Your task to perform on an android device: check battery use Image 0: 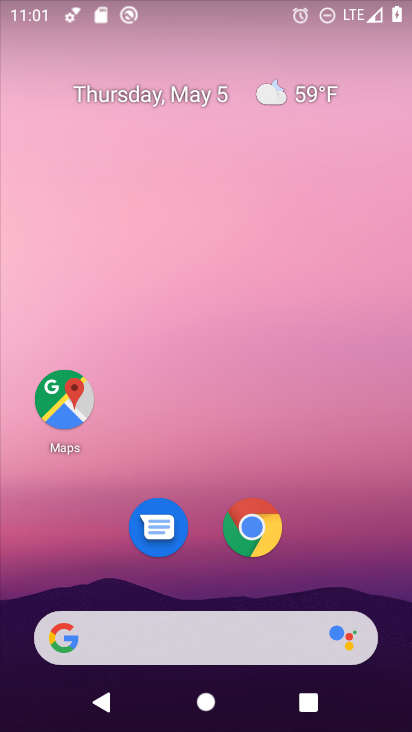
Step 0: drag from (258, 704) to (352, 66)
Your task to perform on an android device: check battery use Image 1: 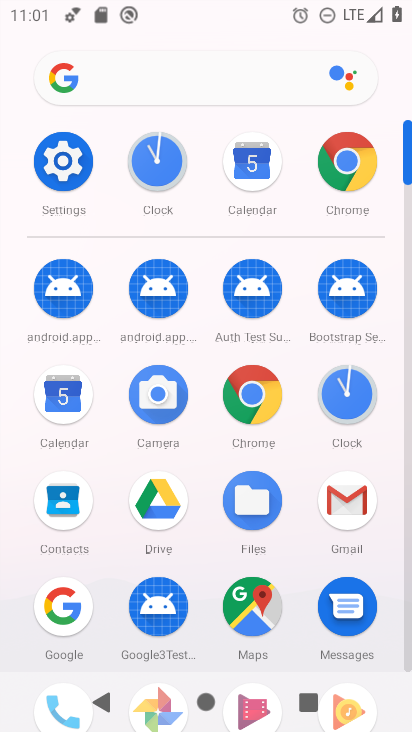
Step 1: click (69, 187)
Your task to perform on an android device: check battery use Image 2: 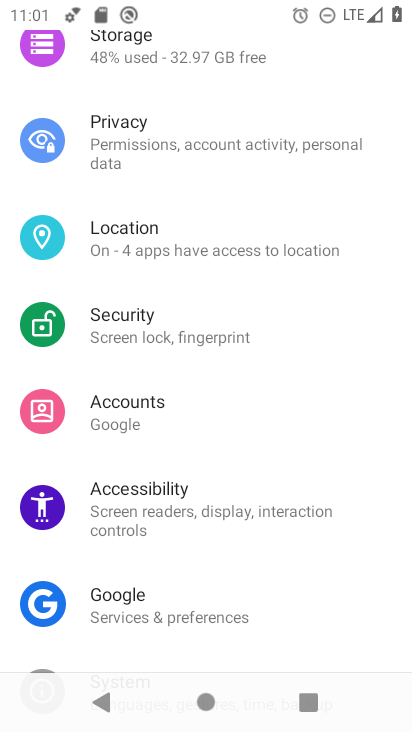
Step 2: drag from (291, 88) to (279, 693)
Your task to perform on an android device: check battery use Image 3: 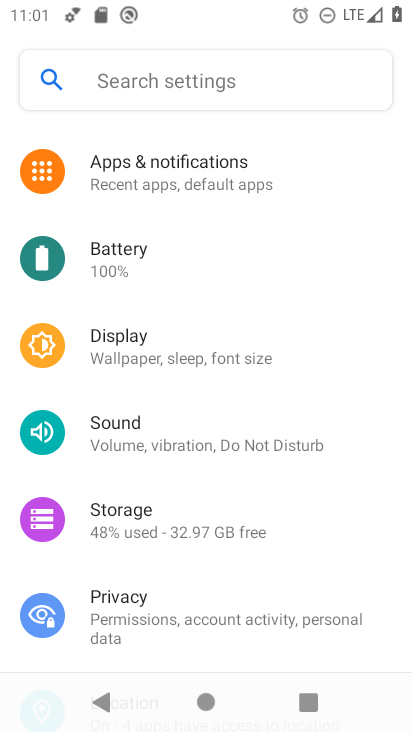
Step 3: click (211, 271)
Your task to perform on an android device: check battery use Image 4: 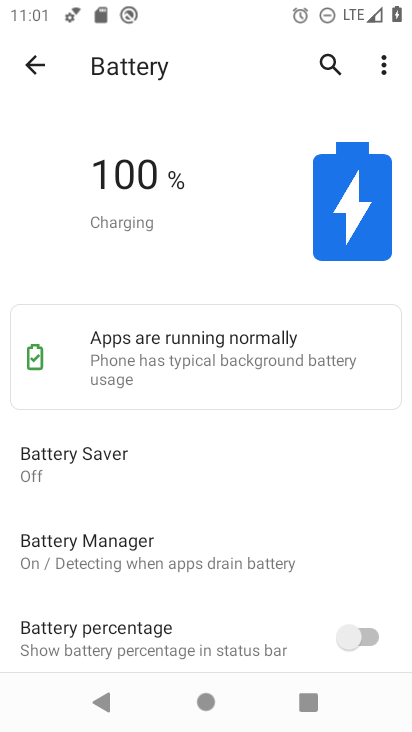
Step 4: click (388, 67)
Your task to perform on an android device: check battery use Image 5: 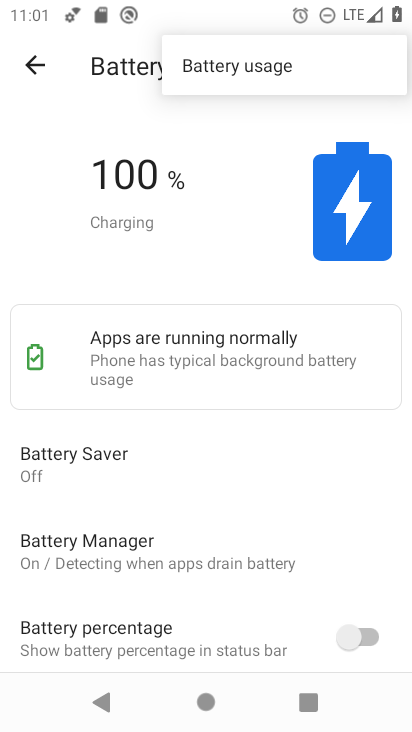
Step 5: click (295, 73)
Your task to perform on an android device: check battery use Image 6: 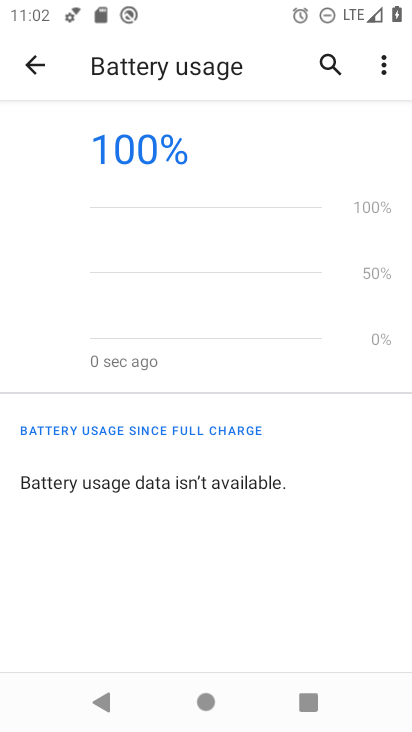
Step 6: task complete